Your task to perform on an android device: add a label to a message in the gmail app Image 0: 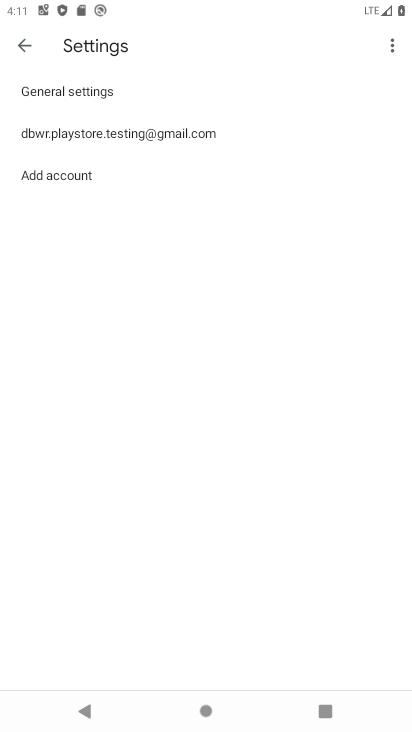
Step 0: click (27, 46)
Your task to perform on an android device: add a label to a message in the gmail app Image 1: 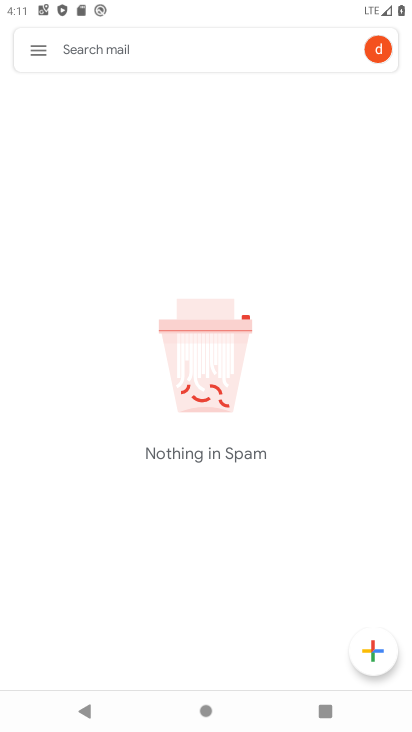
Step 1: click (41, 51)
Your task to perform on an android device: add a label to a message in the gmail app Image 2: 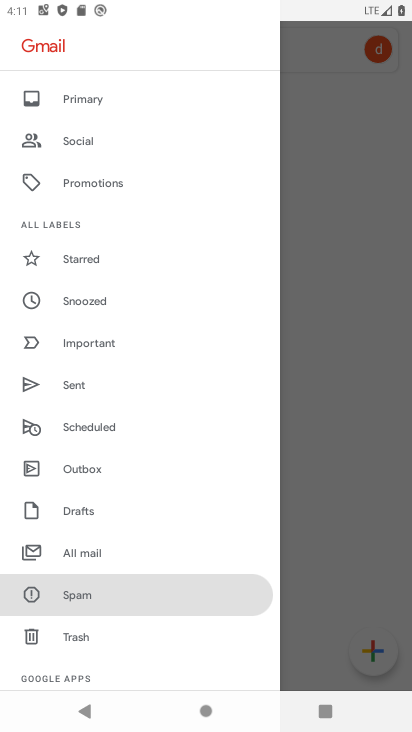
Step 2: click (76, 552)
Your task to perform on an android device: add a label to a message in the gmail app Image 3: 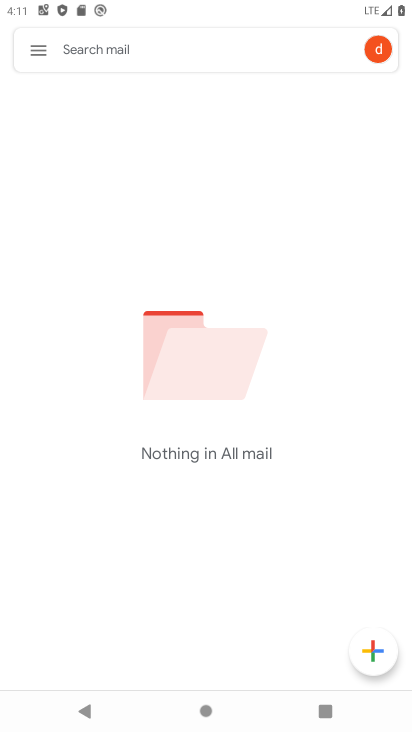
Step 3: task complete